Your task to perform on an android device: find photos in the google photos app Image 0: 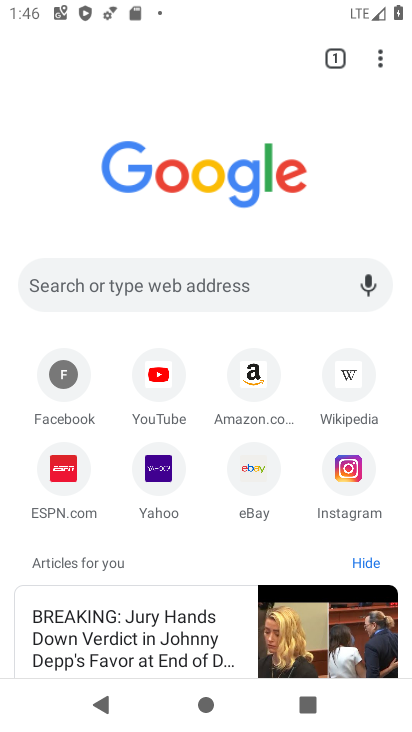
Step 0: press home button
Your task to perform on an android device: find photos in the google photos app Image 1: 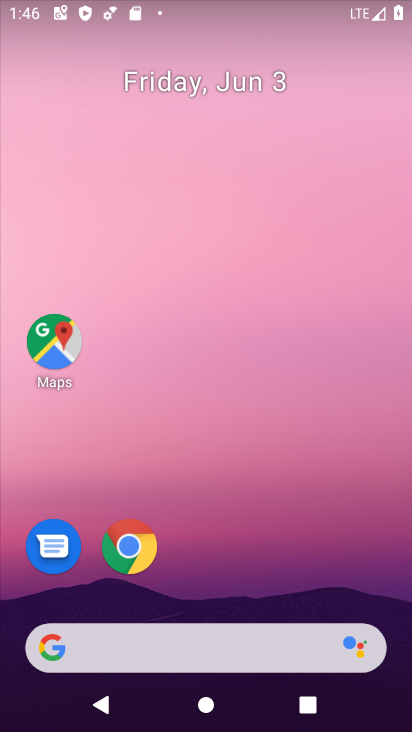
Step 1: drag from (208, 613) to (180, 2)
Your task to perform on an android device: find photos in the google photos app Image 2: 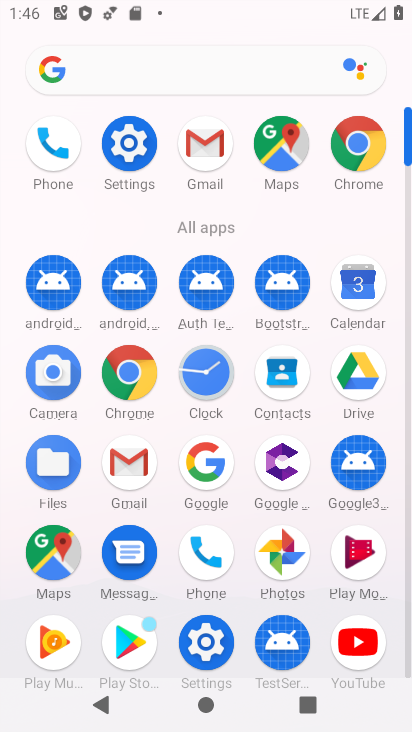
Step 2: click (285, 567)
Your task to perform on an android device: find photos in the google photos app Image 3: 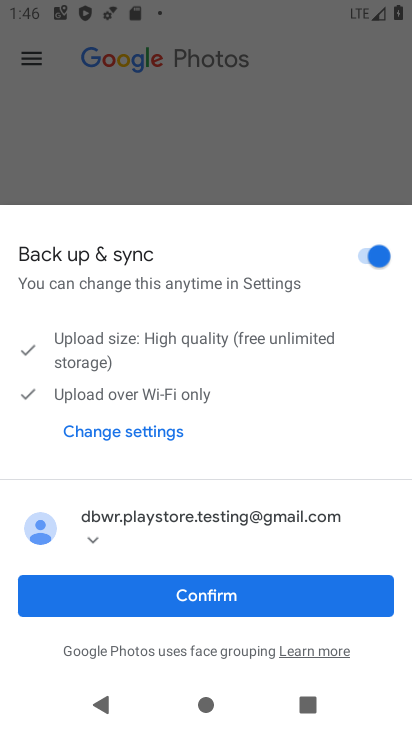
Step 3: click (204, 603)
Your task to perform on an android device: find photos in the google photos app Image 4: 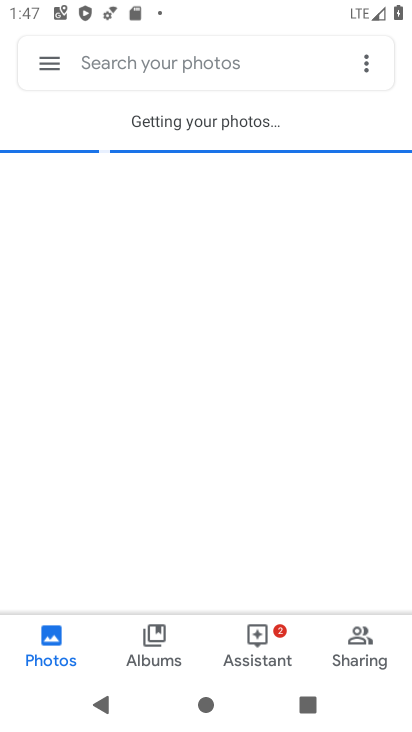
Step 4: click (39, 80)
Your task to perform on an android device: find photos in the google photos app Image 5: 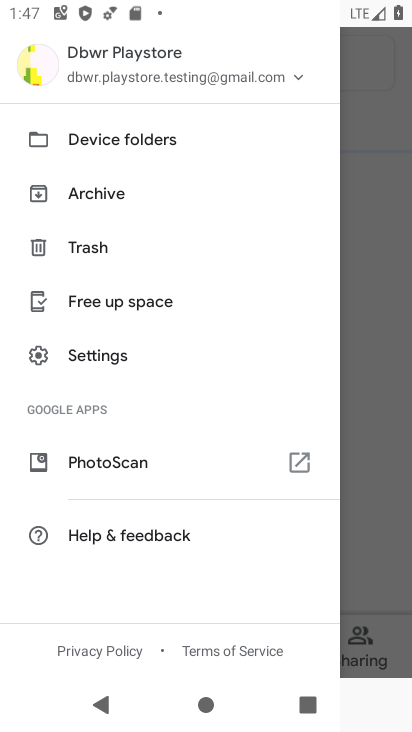
Step 5: click (355, 200)
Your task to perform on an android device: find photos in the google photos app Image 6: 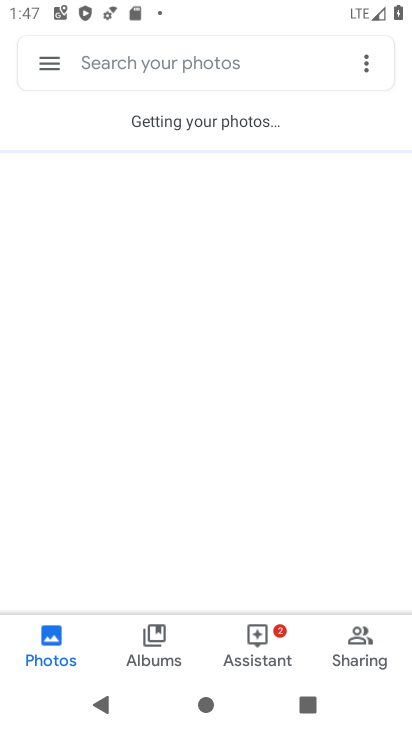
Step 6: task complete